Your task to perform on an android device: Do I have any events this weekend? Image 0: 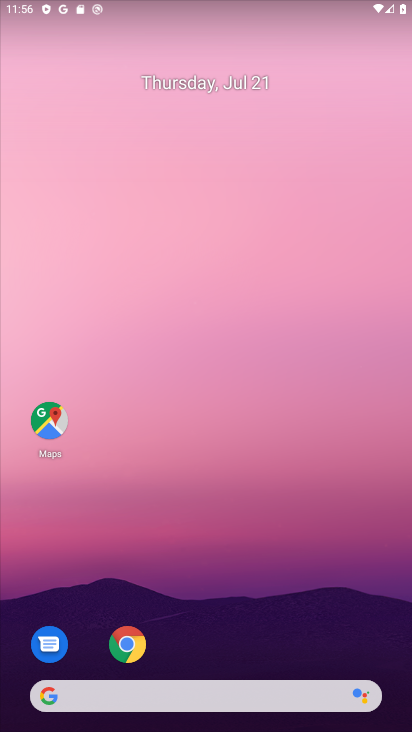
Step 0: drag from (6, 286) to (411, 369)
Your task to perform on an android device: Do I have any events this weekend? Image 1: 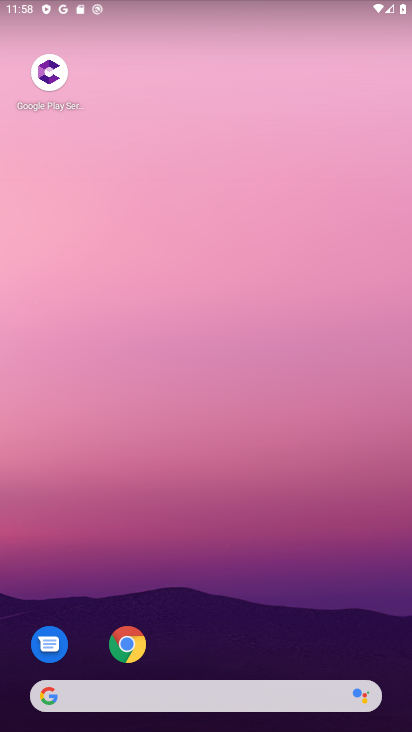
Step 1: press home button
Your task to perform on an android device: Do I have any events this weekend? Image 2: 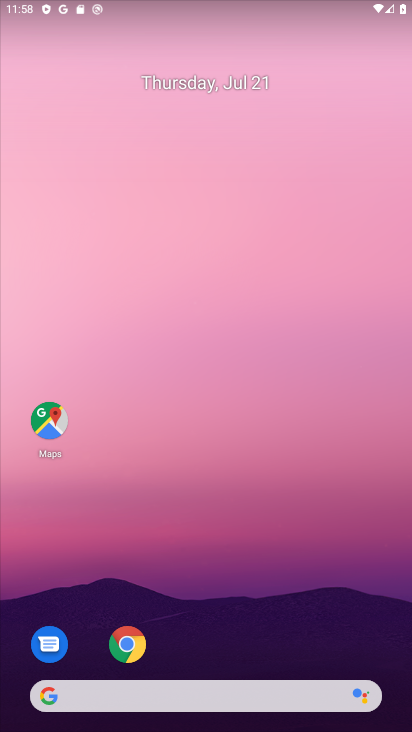
Step 2: drag from (264, 516) to (142, 0)
Your task to perform on an android device: Do I have any events this weekend? Image 3: 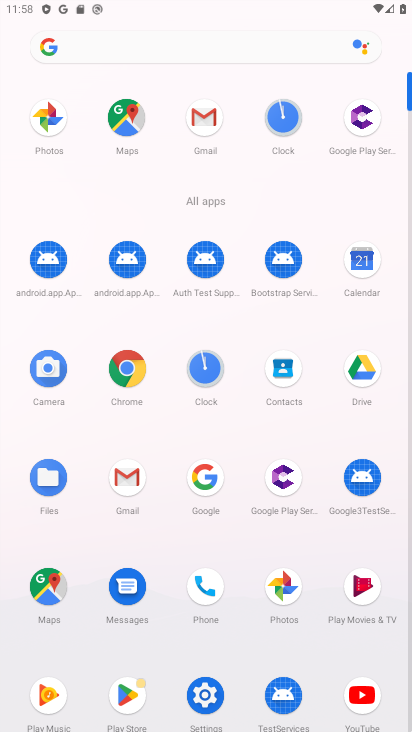
Step 3: click (361, 272)
Your task to perform on an android device: Do I have any events this weekend? Image 4: 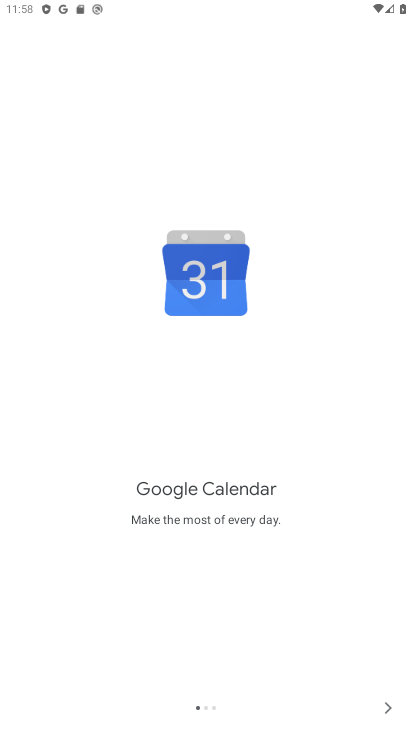
Step 4: click (390, 704)
Your task to perform on an android device: Do I have any events this weekend? Image 5: 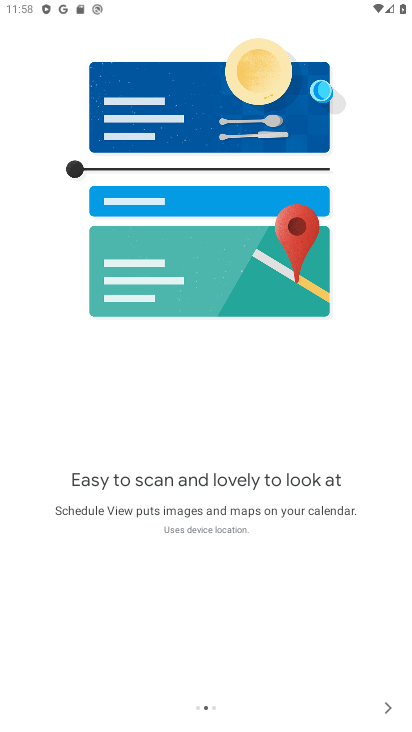
Step 5: click (390, 704)
Your task to perform on an android device: Do I have any events this weekend? Image 6: 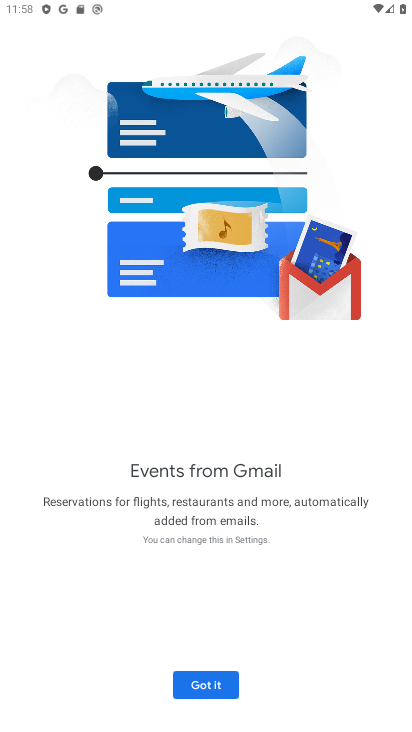
Step 6: click (390, 704)
Your task to perform on an android device: Do I have any events this weekend? Image 7: 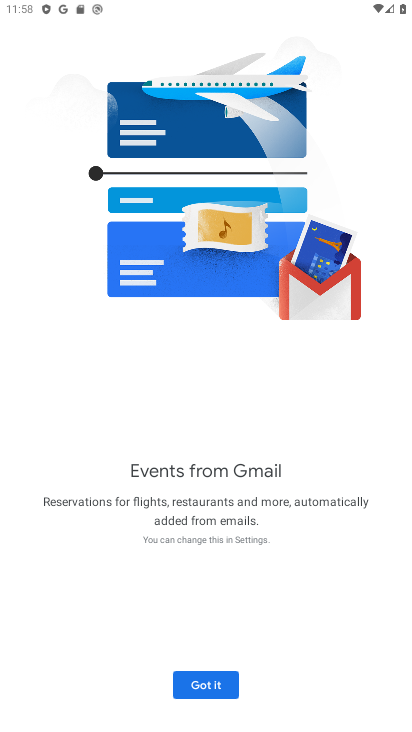
Step 7: click (188, 685)
Your task to perform on an android device: Do I have any events this weekend? Image 8: 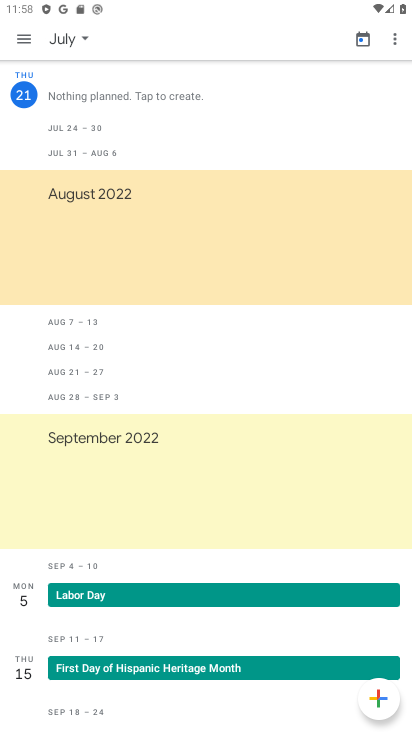
Step 8: click (20, 49)
Your task to perform on an android device: Do I have any events this weekend? Image 9: 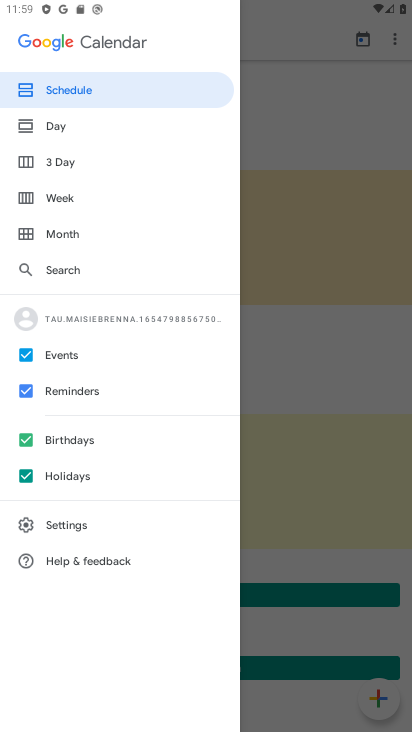
Step 9: click (77, 160)
Your task to perform on an android device: Do I have any events this weekend? Image 10: 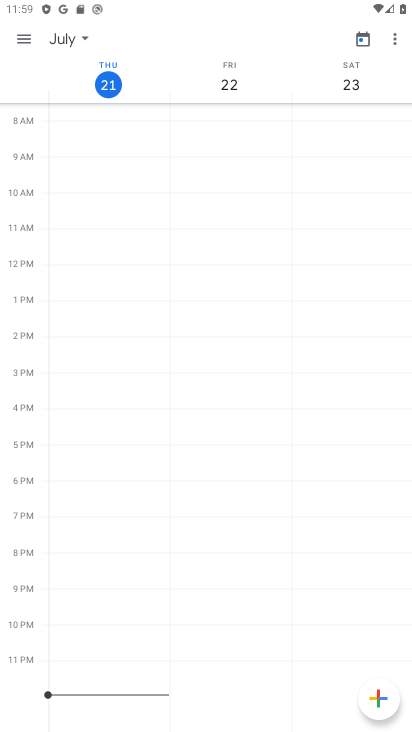
Step 10: click (77, 39)
Your task to perform on an android device: Do I have any events this weekend? Image 11: 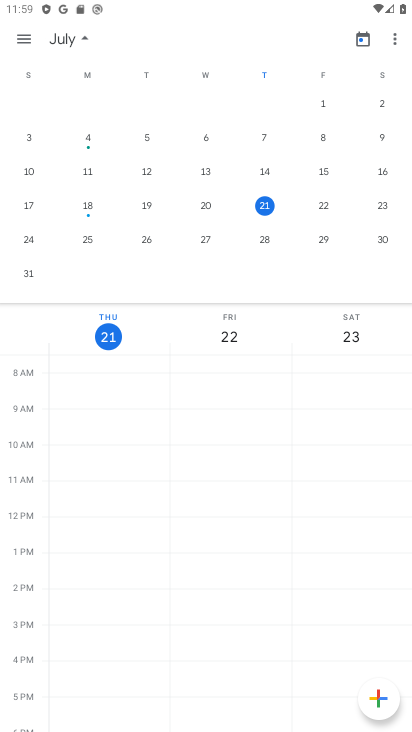
Step 11: click (383, 206)
Your task to perform on an android device: Do I have any events this weekend? Image 12: 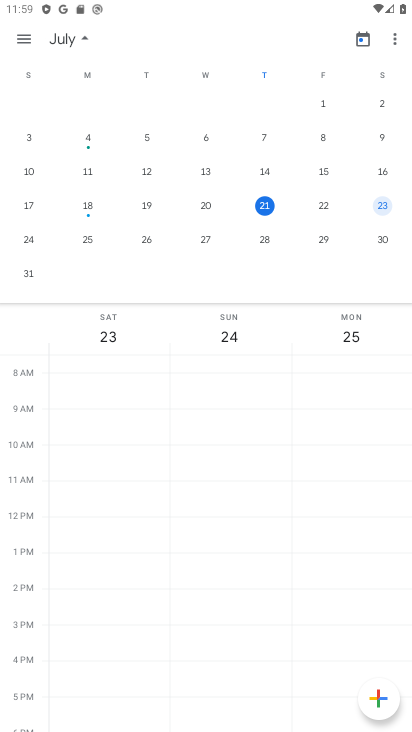
Step 12: task complete